Your task to perform on an android device: turn notification dots off Image 0: 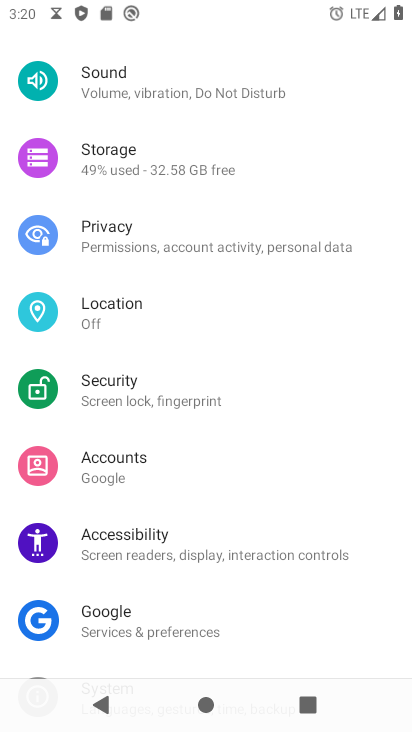
Step 0: drag from (178, 236) to (187, 715)
Your task to perform on an android device: turn notification dots off Image 1: 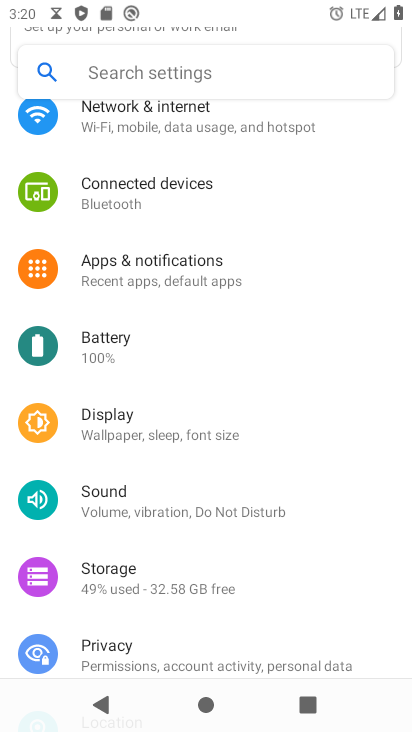
Step 1: click (177, 267)
Your task to perform on an android device: turn notification dots off Image 2: 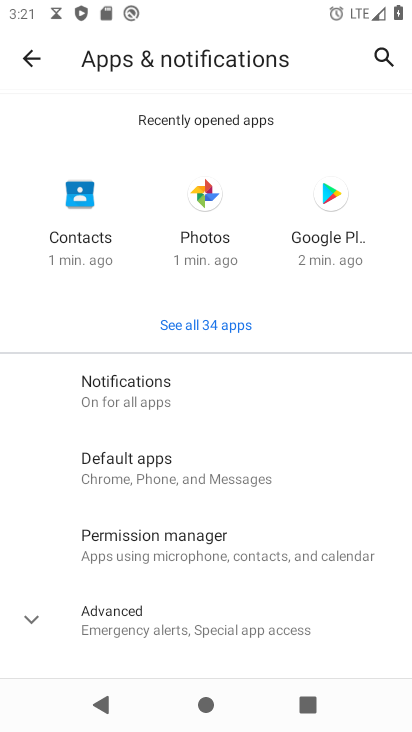
Step 2: click (178, 408)
Your task to perform on an android device: turn notification dots off Image 3: 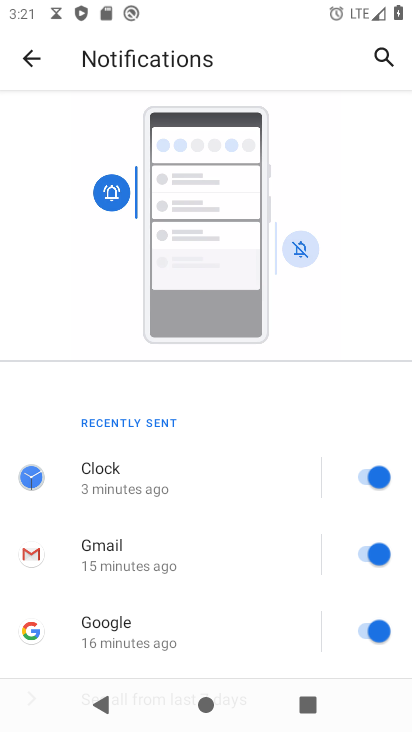
Step 3: drag from (167, 570) to (226, 169)
Your task to perform on an android device: turn notification dots off Image 4: 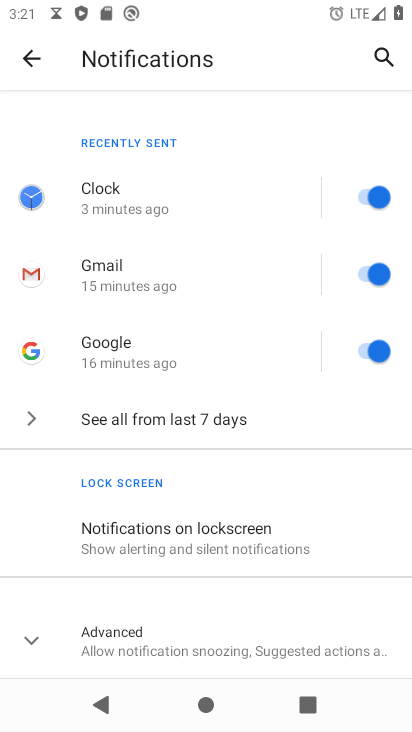
Step 4: click (154, 635)
Your task to perform on an android device: turn notification dots off Image 5: 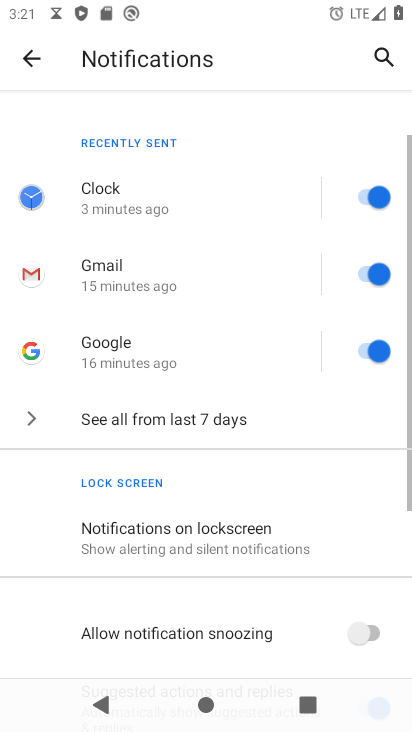
Step 5: drag from (211, 603) to (293, 232)
Your task to perform on an android device: turn notification dots off Image 6: 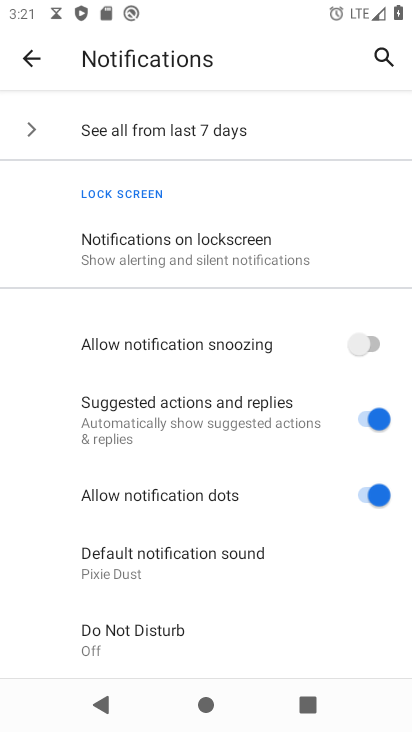
Step 6: click (351, 493)
Your task to perform on an android device: turn notification dots off Image 7: 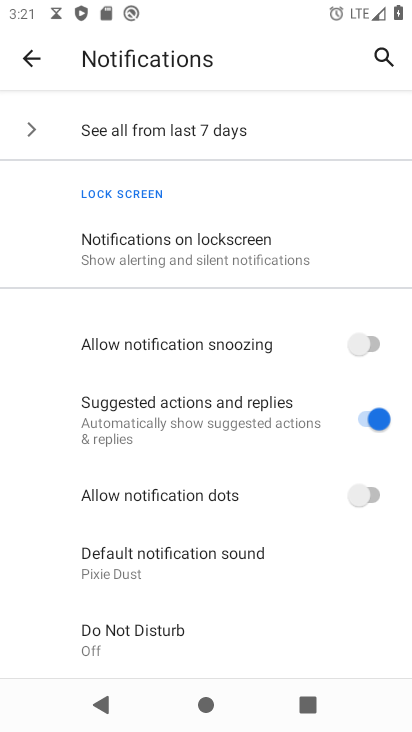
Step 7: task complete